Your task to perform on an android device: Search for Italian restaurants on Maps Image 0: 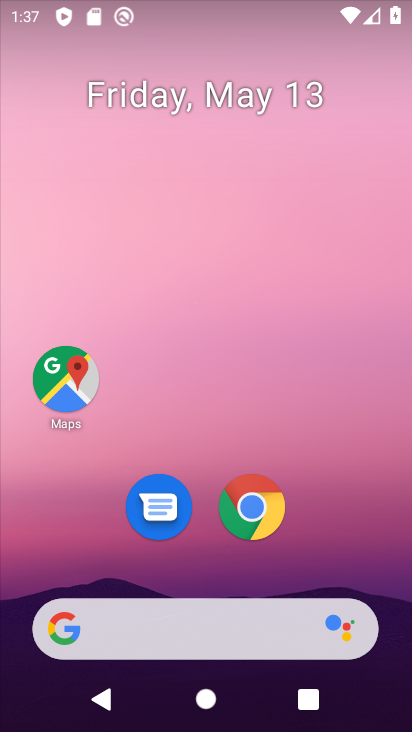
Step 0: drag from (340, 623) to (178, 8)
Your task to perform on an android device: Search for Italian restaurants on Maps Image 1: 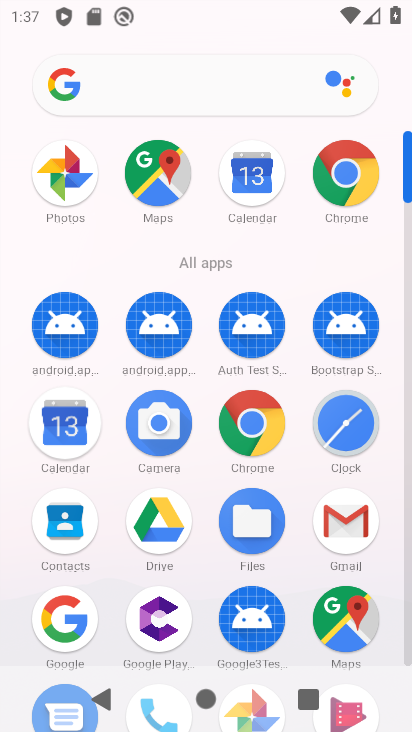
Step 1: click (148, 159)
Your task to perform on an android device: Search for Italian restaurants on Maps Image 2: 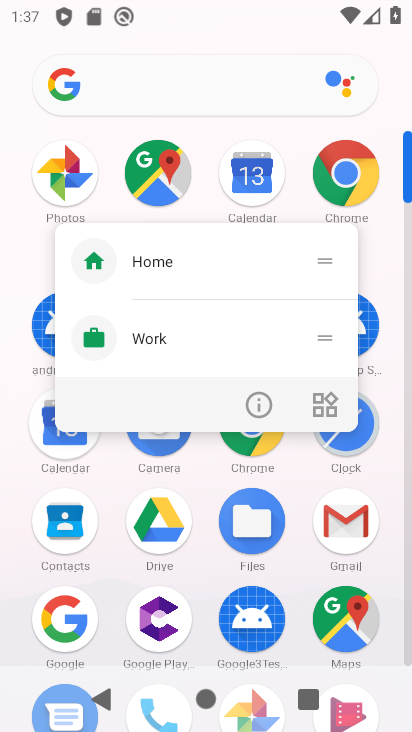
Step 2: click (147, 170)
Your task to perform on an android device: Search for Italian restaurants on Maps Image 3: 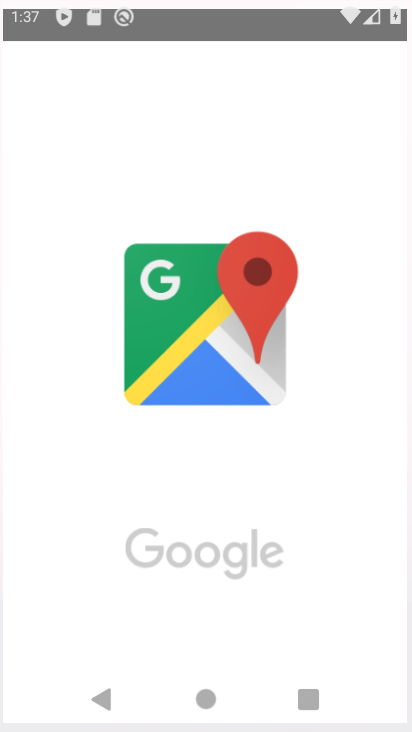
Step 3: click (148, 167)
Your task to perform on an android device: Search for Italian restaurants on Maps Image 4: 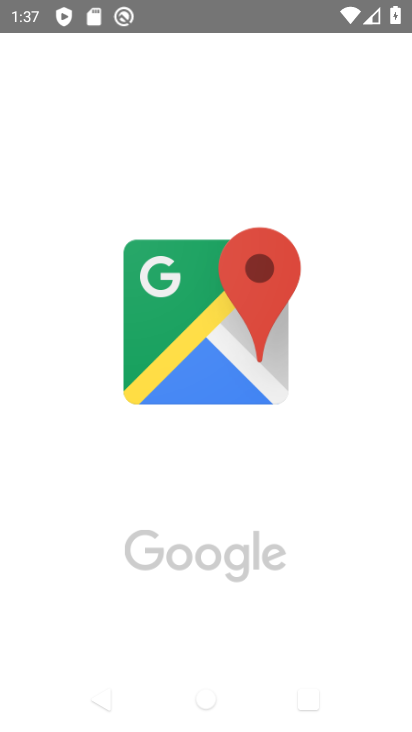
Step 4: click (147, 166)
Your task to perform on an android device: Search for Italian restaurants on Maps Image 5: 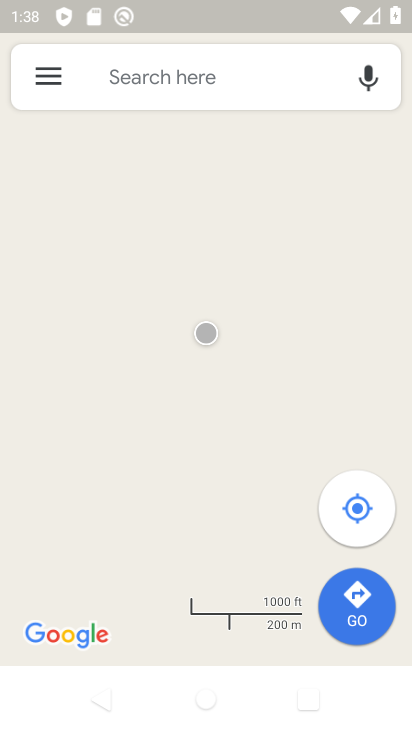
Step 5: click (112, 71)
Your task to perform on an android device: Search for Italian restaurants on Maps Image 6: 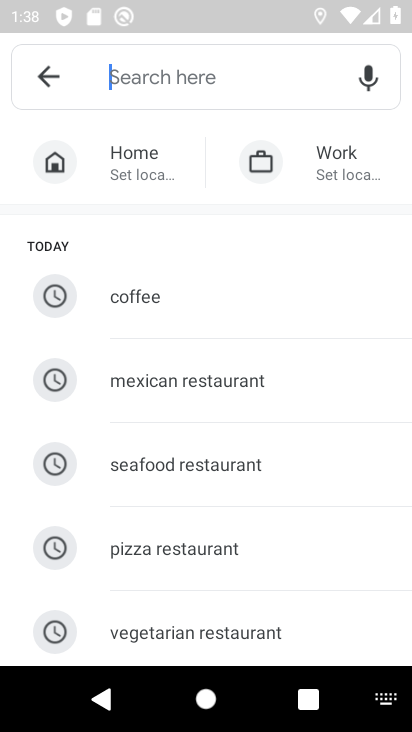
Step 6: type "italian restaurants"
Your task to perform on an android device: Search for Italian restaurants on Maps Image 7: 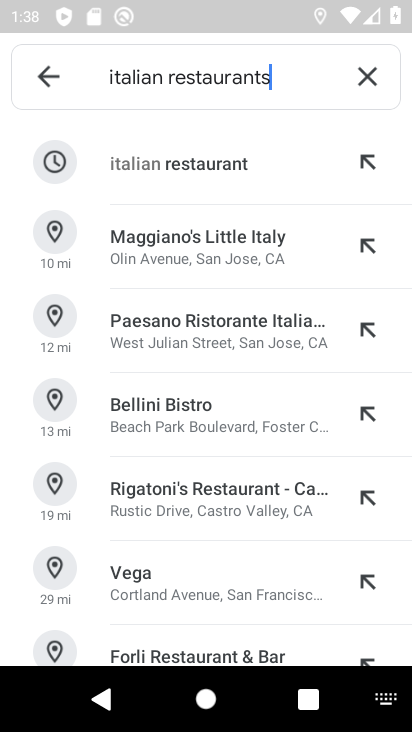
Step 7: click (186, 174)
Your task to perform on an android device: Search for Italian restaurants on Maps Image 8: 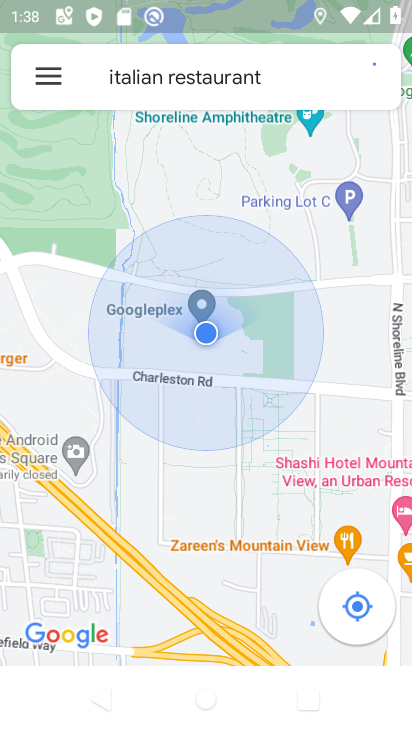
Step 8: task complete